Your task to perform on an android device: Do I have any events tomorrow? Image 0: 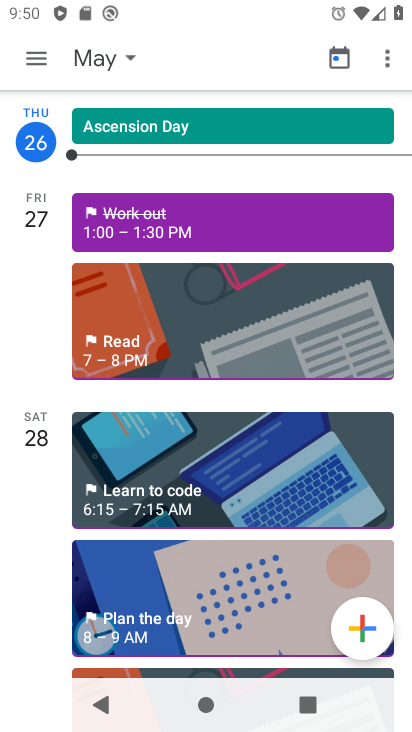
Step 0: press home button
Your task to perform on an android device: Do I have any events tomorrow? Image 1: 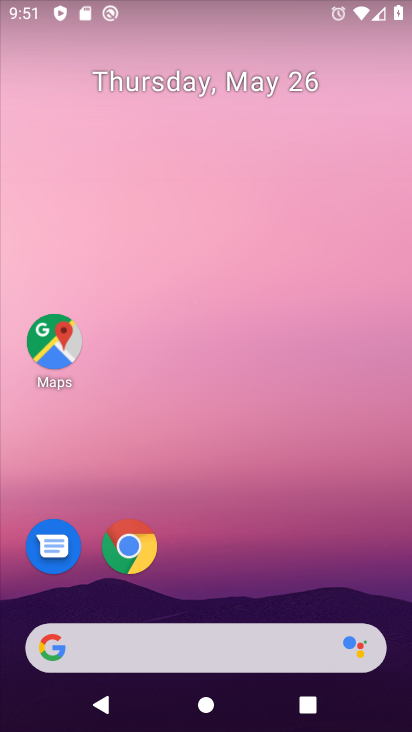
Step 1: drag from (258, 548) to (248, 164)
Your task to perform on an android device: Do I have any events tomorrow? Image 2: 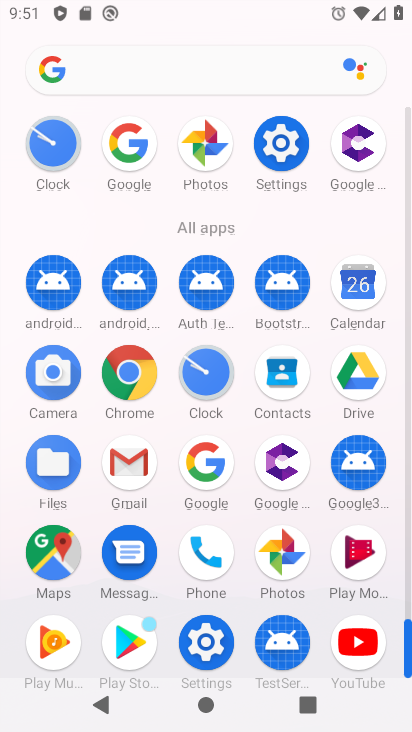
Step 2: click (358, 281)
Your task to perform on an android device: Do I have any events tomorrow? Image 3: 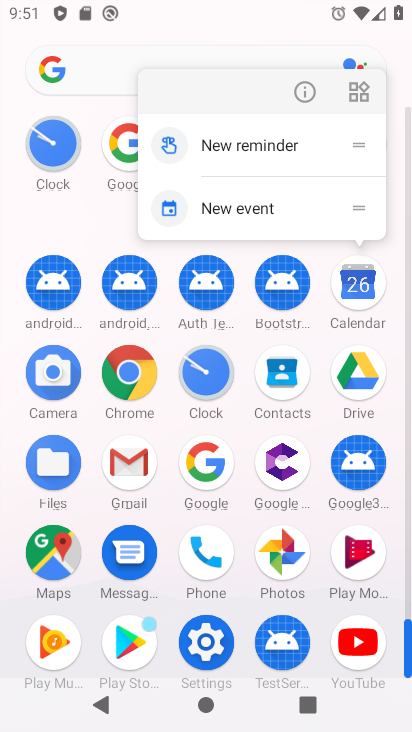
Step 3: click (358, 281)
Your task to perform on an android device: Do I have any events tomorrow? Image 4: 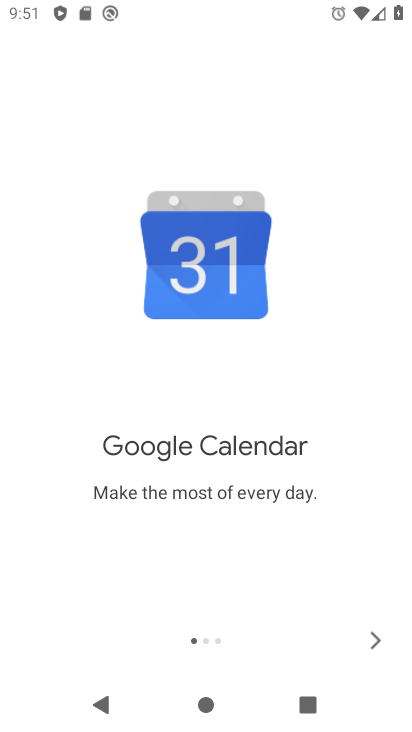
Step 4: click (376, 638)
Your task to perform on an android device: Do I have any events tomorrow? Image 5: 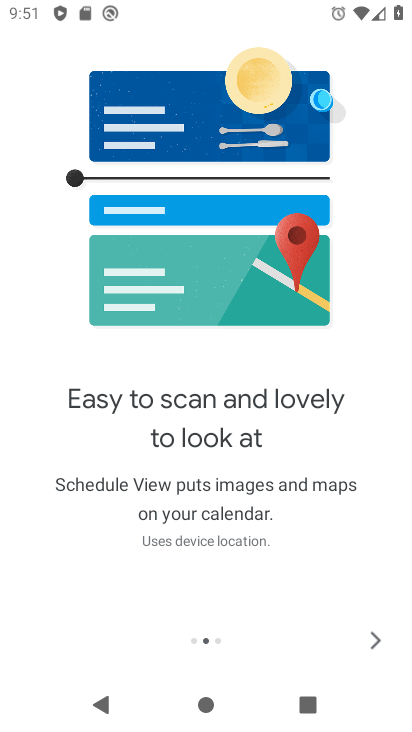
Step 5: click (376, 638)
Your task to perform on an android device: Do I have any events tomorrow? Image 6: 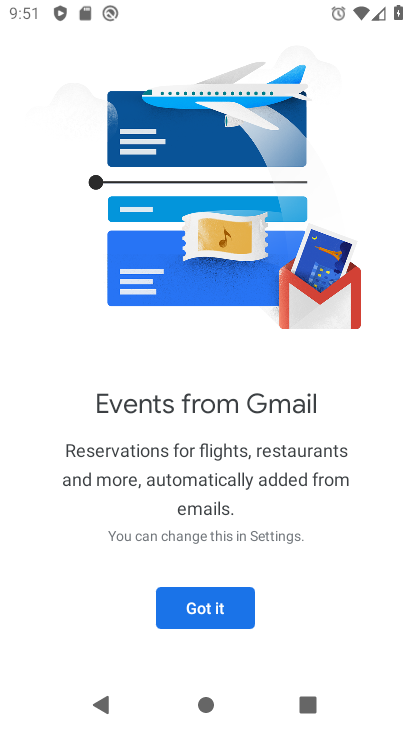
Step 6: click (208, 612)
Your task to perform on an android device: Do I have any events tomorrow? Image 7: 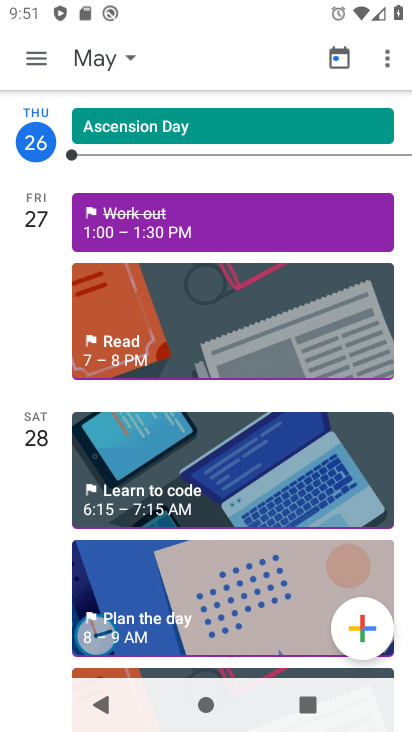
Step 7: click (129, 56)
Your task to perform on an android device: Do I have any events tomorrow? Image 8: 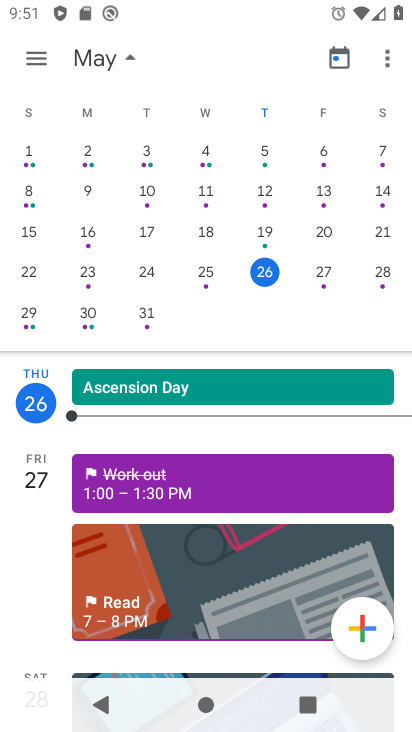
Step 8: click (321, 277)
Your task to perform on an android device: Do I have any events tomorrow? Image 9: 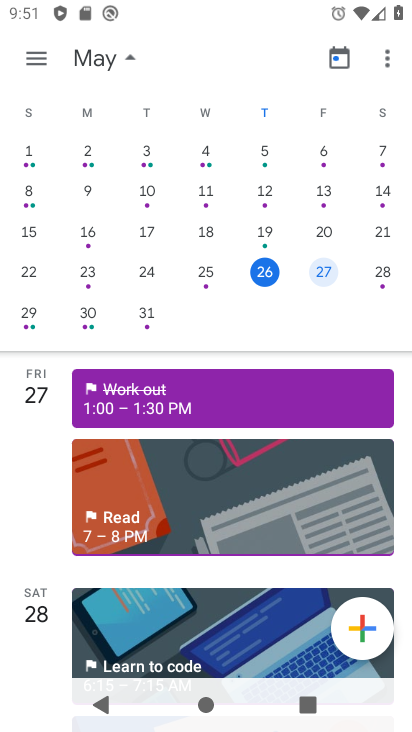
Step 9: click (35, 59)
Your task to perform on an android device: Do I have any events tomorrow? Image 10: 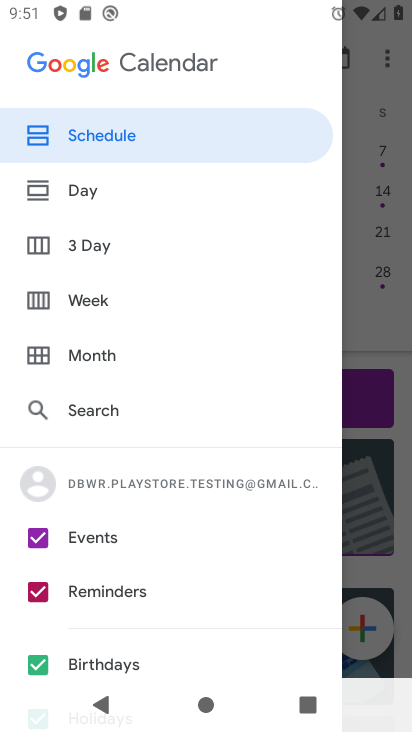
Step 10: click (100, 132)
Your task to perform on an android device: Do I have any events tomorrow? Image 11: 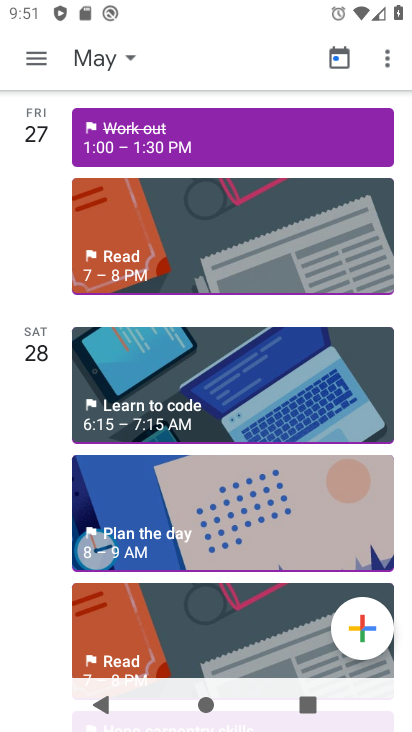
Step 11: task complete